Your task to perform on an android device: Go to location settings Image 0: 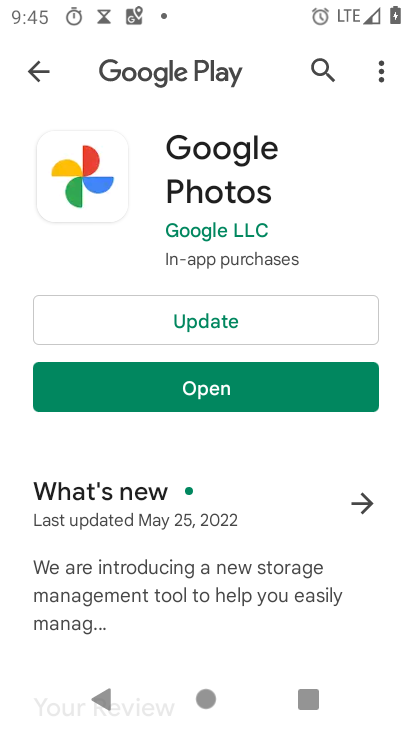
Step 0: press home button
Your task to perform on an android device: Go to location settings Image 1: 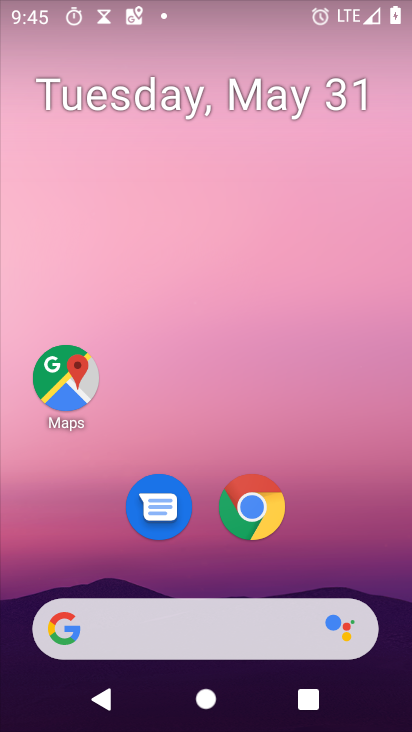
Step 1: drag from (27, 535) to (264, 161)
Your task to perform on an android device: Go to location settings Image 2: 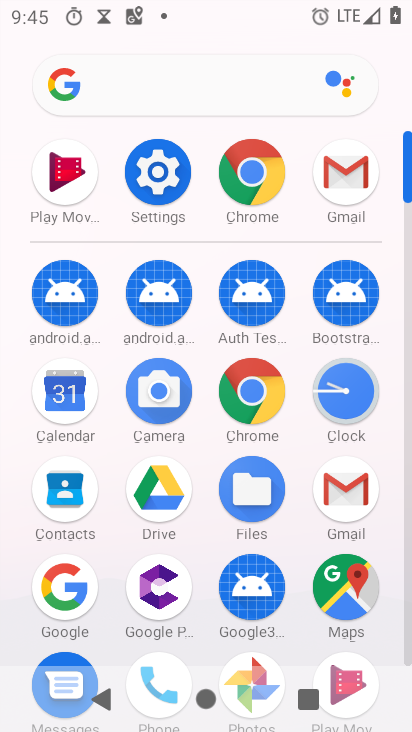
Step 2: click (161, 163)
Your task to perform on an android device: Go to location settings Image 3: 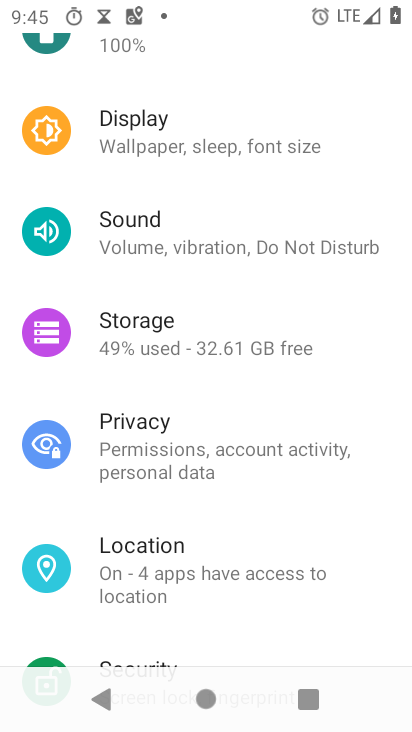
Step 3: click (157, 567)
Your task to perform on an android device: Go to location settings Image 4: 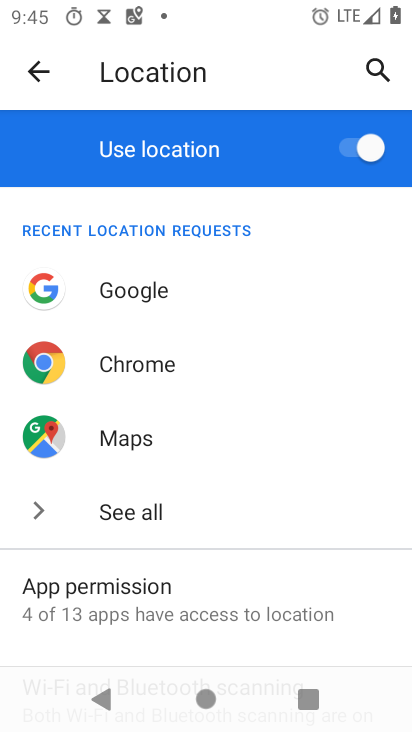
Step 4: task complete